Your task to perform on an android device: stop showing notifications on the lock screen Image 0: 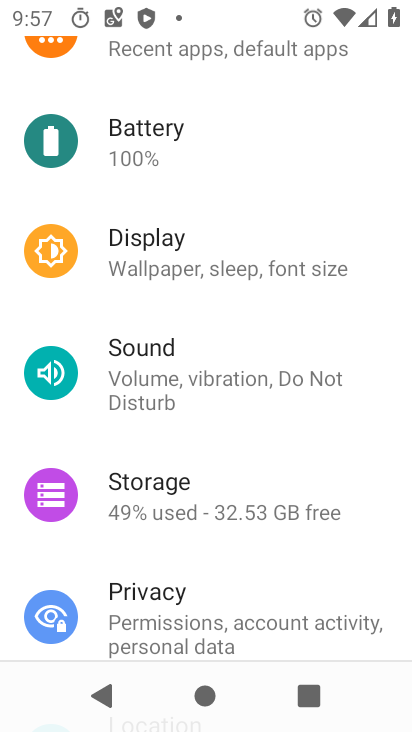
Step 0: drag from (245, 263) to (190, 683)
Your task to perform on an android device: stop showing notifications on the lock screen Image 1: 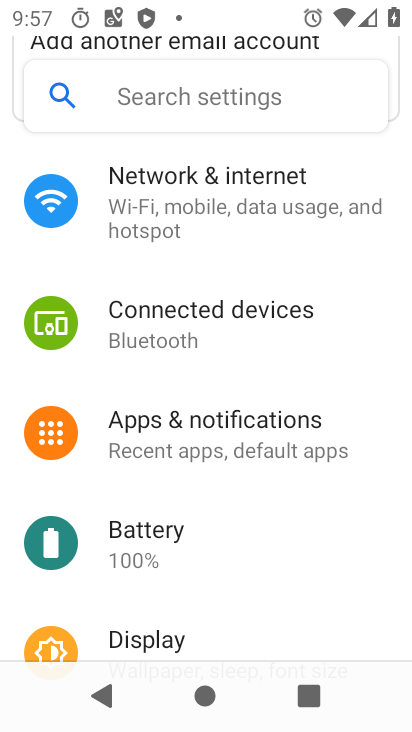
Step 1: click (270, 434)
Your task to perform on an android device: stop showing notifications on the lock screen Image 2: 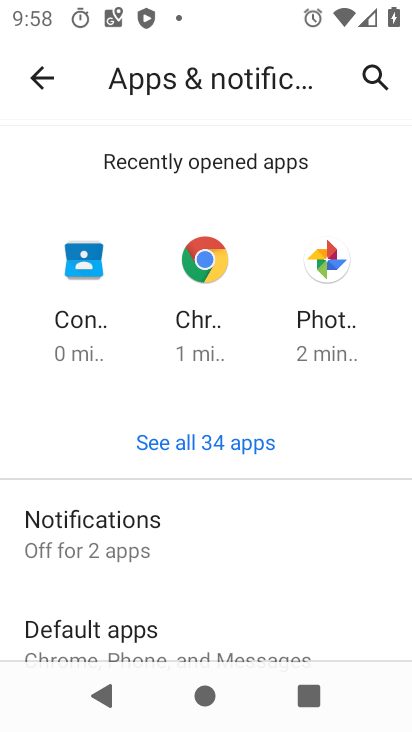
Step 2: click (148, 537)
Your task to perform on an android device: stop showing notifications on the lock screen Image 3: 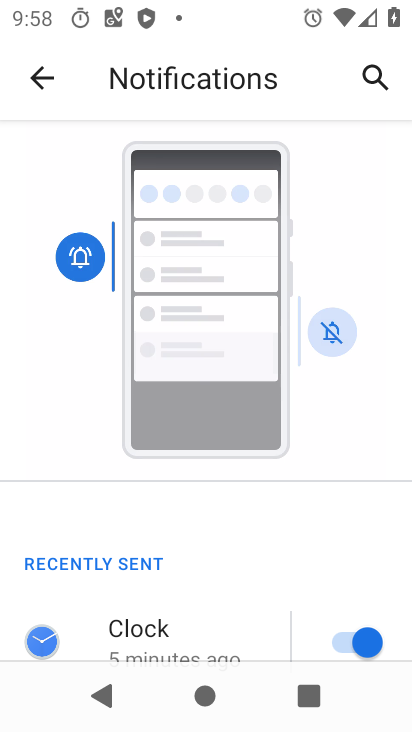
Step 3: drag from (215, 613) to (277, 194)
Your task to perform on an android device: stop showing notifications on the lock screen Image 4: 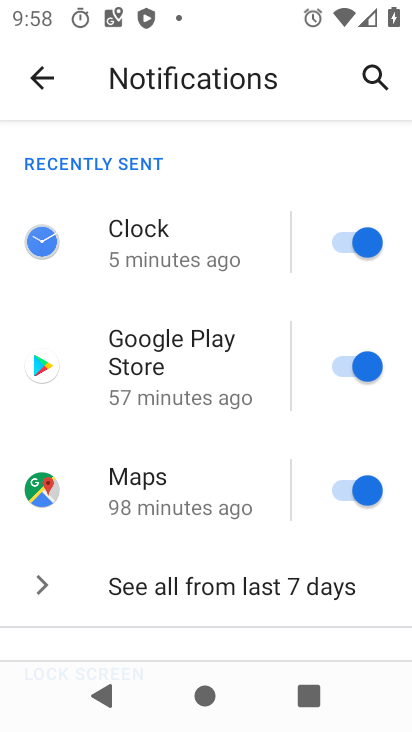
Step 4: drag from (196, 550) to (267, 203)
Your task to perform on an android device: stop showing notifications on the lock screen Image 5: 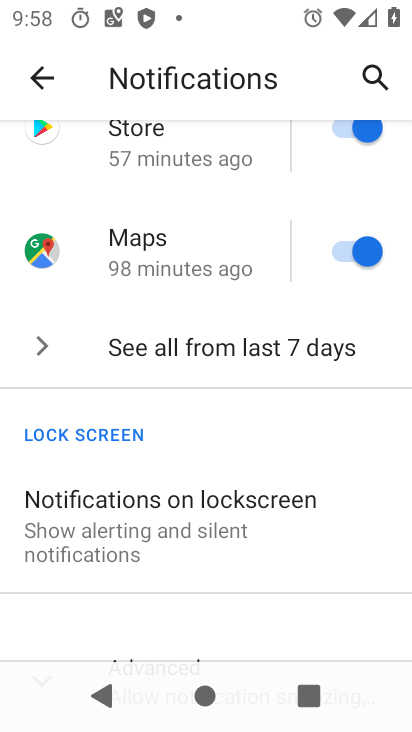
Step 5: click (275, 506)
Your task to perform on an android device: stop showing notifications on the lock screen Image 6: 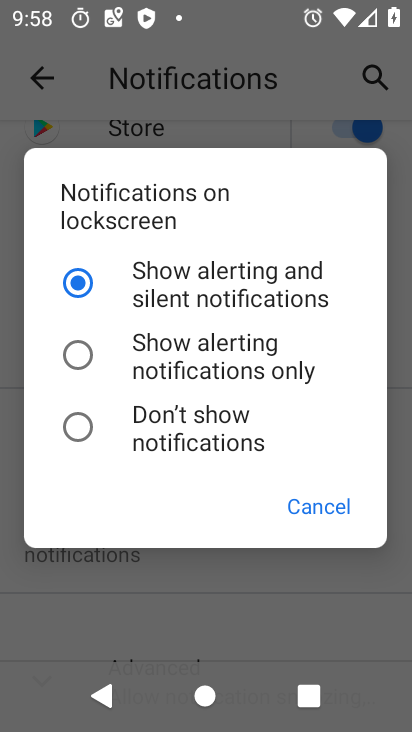
Step 6: click (165, 424)
Your task to perform on an android device: stop showing notifications on the lock screen Image 7: 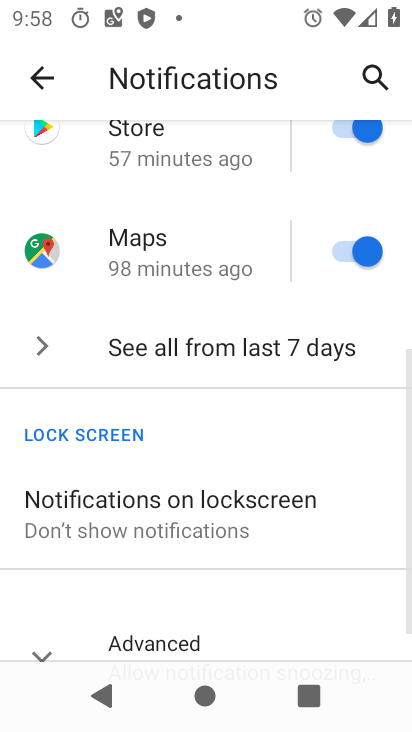
Step 7: task complete